Your task to perform on an android device: What is the news today? Image 0: 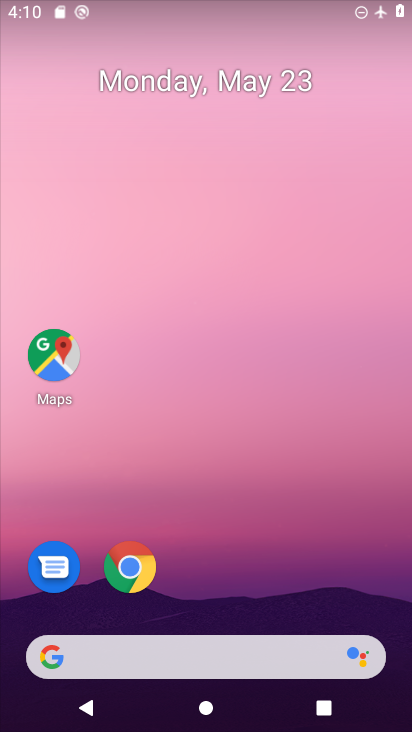
Step 0: click (231, 657)
Your task to perform on an android device: What is the news today? Image 1: 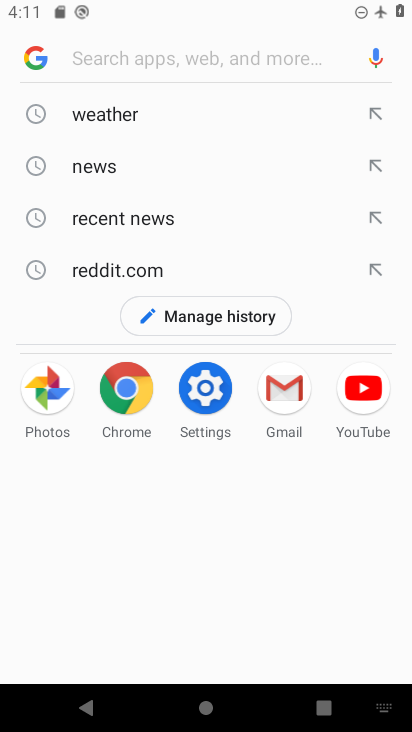
Step 1: click (94, 152)
Your task to perform on an android device: What is the news today? Image 2: 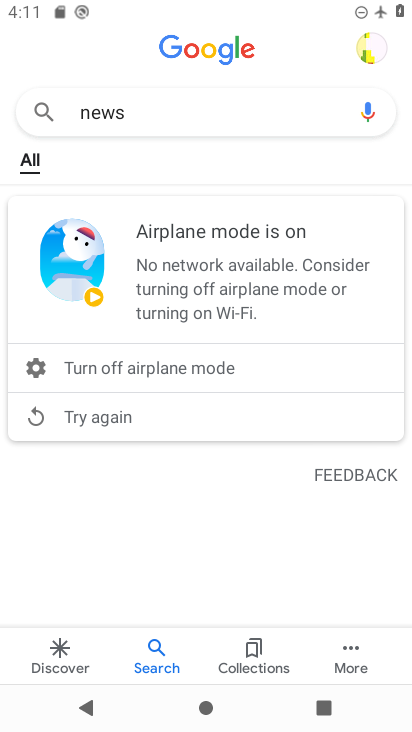
Step 2: task complete